Your task to perform on an android device: Go to calendar. Show me events next week Image 0: 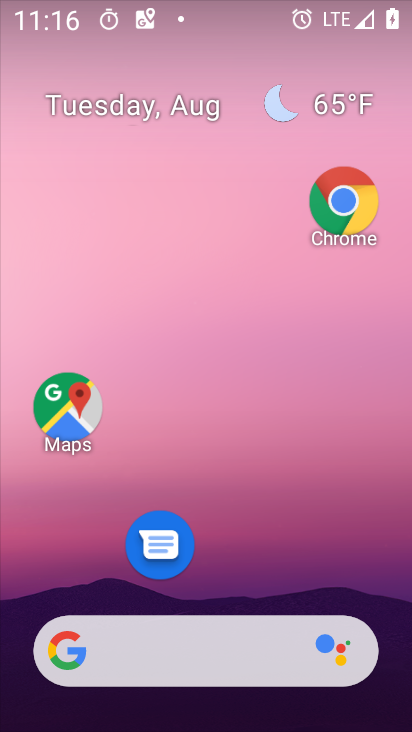
Step 0: drag from (251, 546) to (291, 0)
Your task to perform on an android device: Go to calendar. Show me events next week Image 1: 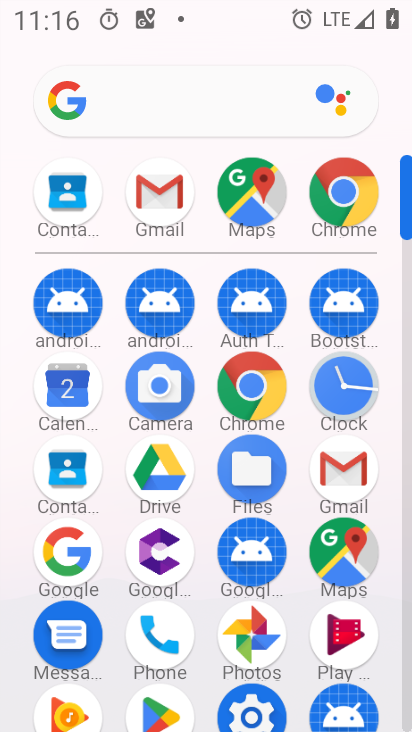
Step 1: click (69, 403)
Your task to perform on an android device: Go to calendar. Show me events next week Image 2: 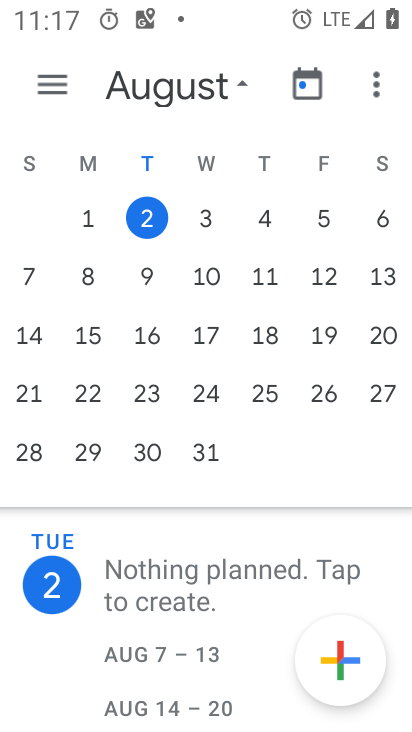
Step 2: click (33, 283)
Your task to perform on an android device: Go to calendar. Show me events next week Image 3: 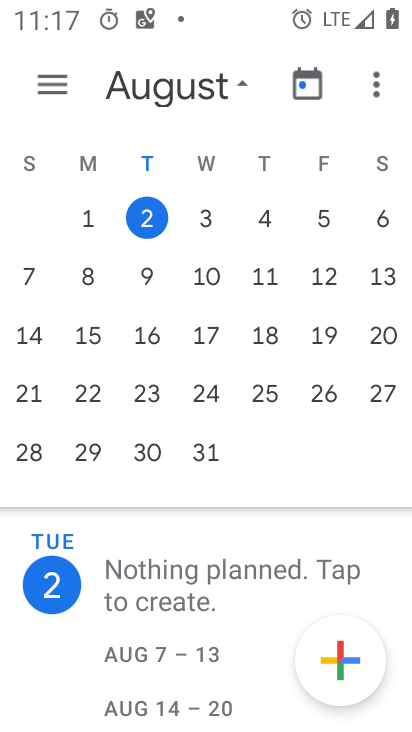
Step 3: click (39, 284)
Your task to perform on an android device: Go to calendar. Show me events next week Image 4: 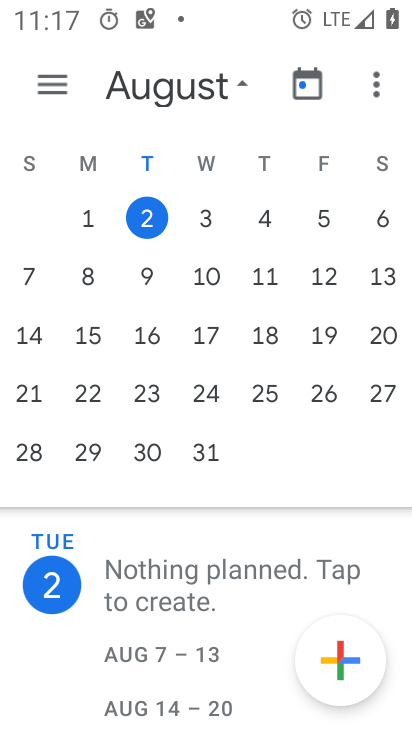
Step 4: click (28, 278)
Your task to perform on an android device: Go to calendar. Show me events next week Image 5: 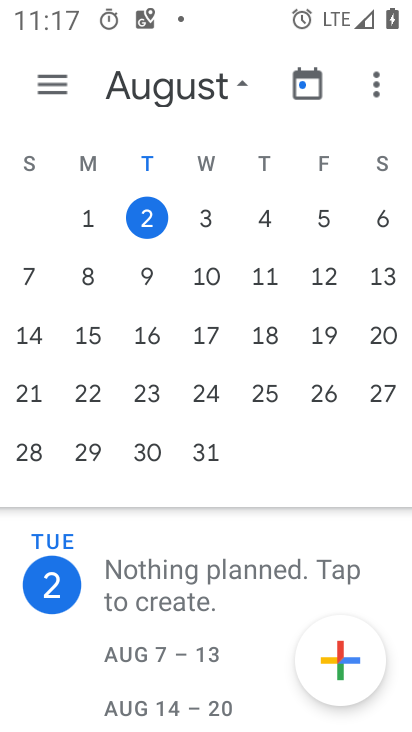
Step 5: click (48, 287)
Your task to perform on an android device: Go to calendar. Show me events next week Image 6: 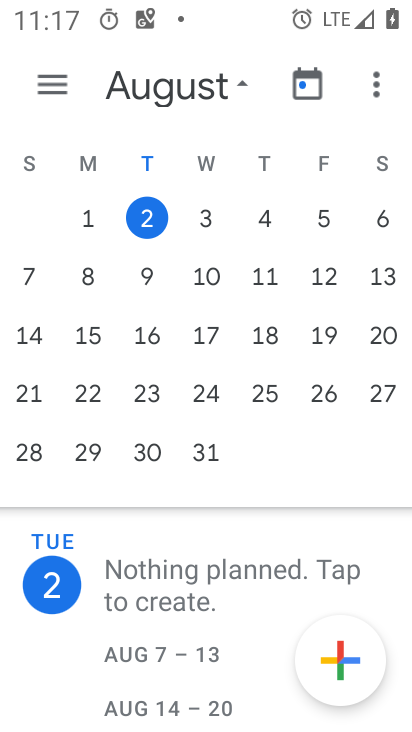
Step 6: click (38, 282)
Your task to perform on an android device: Go to calendar. Show me events next week Image 7: 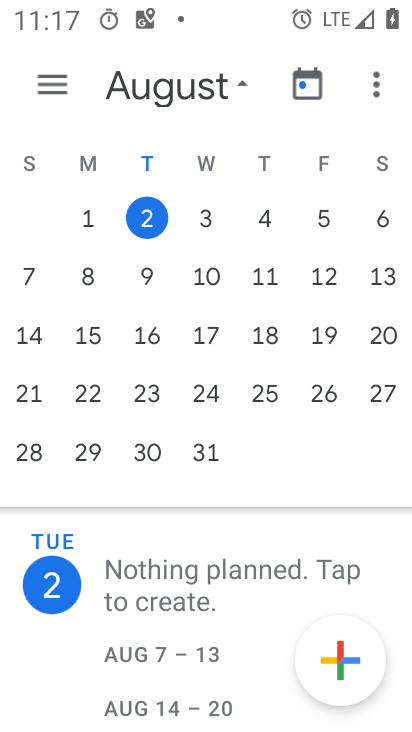
Step 7: click (36, 282)
Your task to perform on an android device: Go to calendar. Show me events next week Image 8: 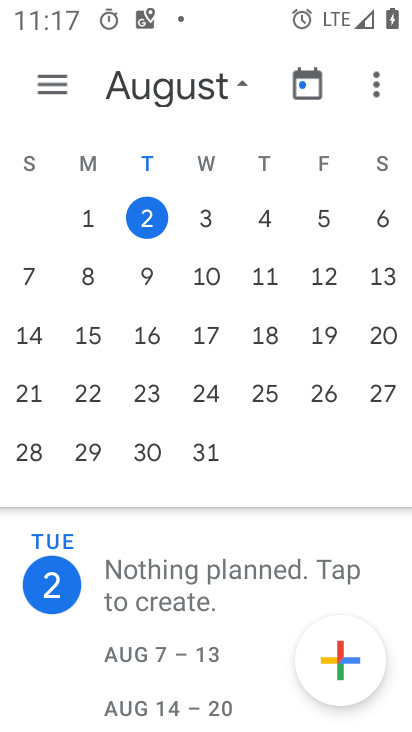
Step 8: task complete